Your task to perform on an android device: Open calendar and show me the second week of next month Image 0: 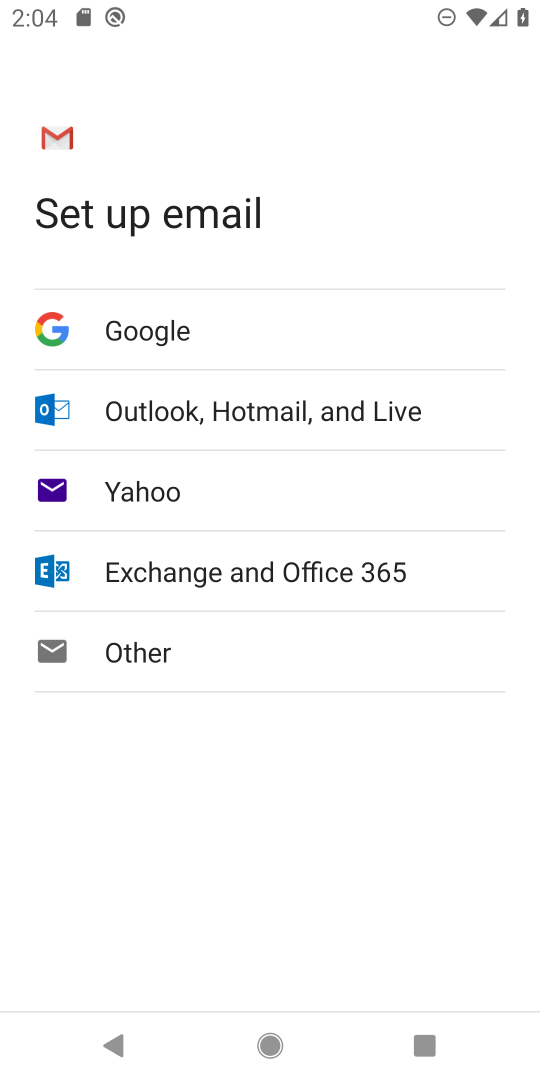
Step 0: task complete